Your task to perform on an android device: Open the web browser Image 0: 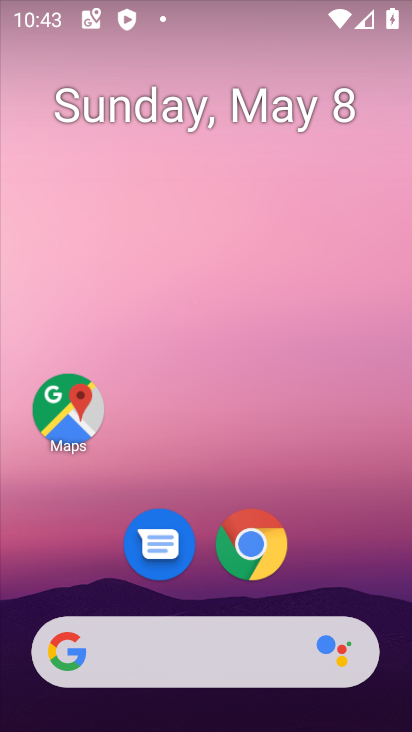
Step 0: click (258, 553)
Your task to perform on an android device: Open the web browser Image 1: 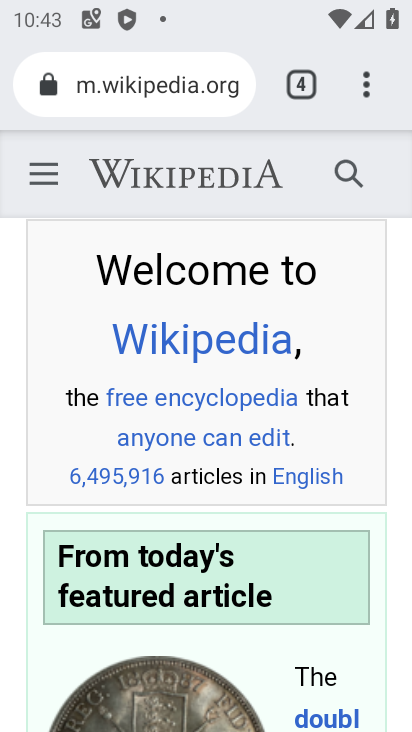
Step 1: task complete